Your task to perform on an android device: empty trash in google photos Image 0: 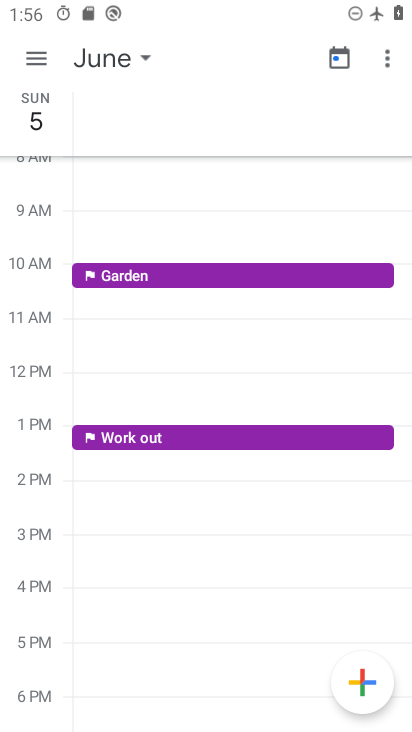
Step 0: press home button
Your task to perform on an android device: empty trash in google photos Image 1: 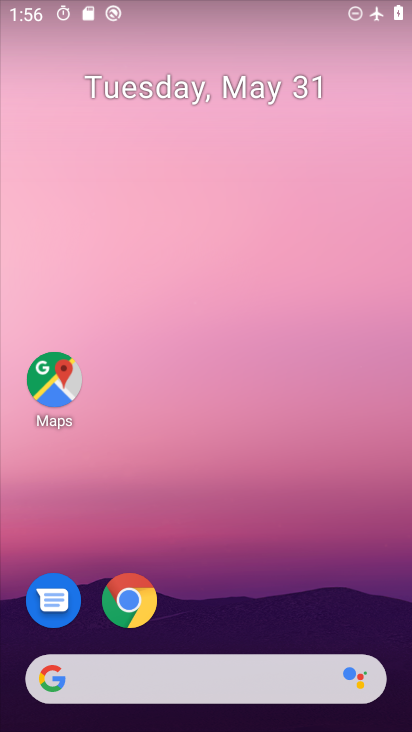
Step 1: drag from (223, 725) to (218, 502)
Your task to perform on an android device: empty trash in google photos Image 2: 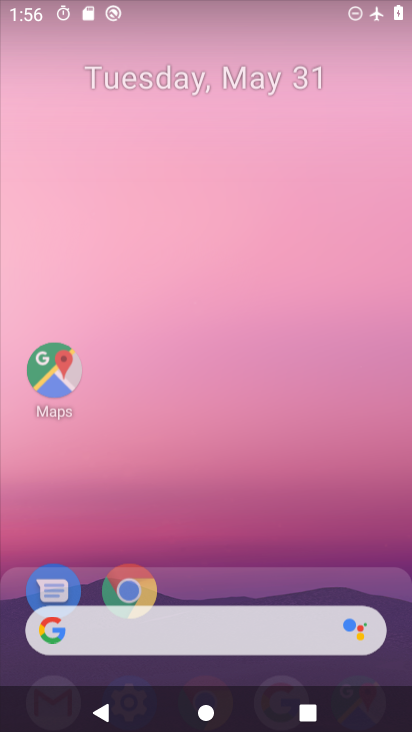
Step 2: drag from (218, 183) to (215, 129)
Your task to perform on an android device: empty trash in google photos Image 3: 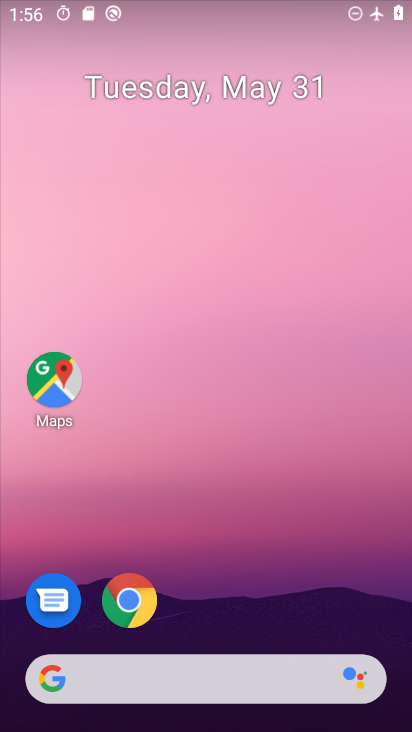
Step 3: drag from (236, 717) to (236, 66)
Your task to perform on an android device: empty trash in google photos Image 4: 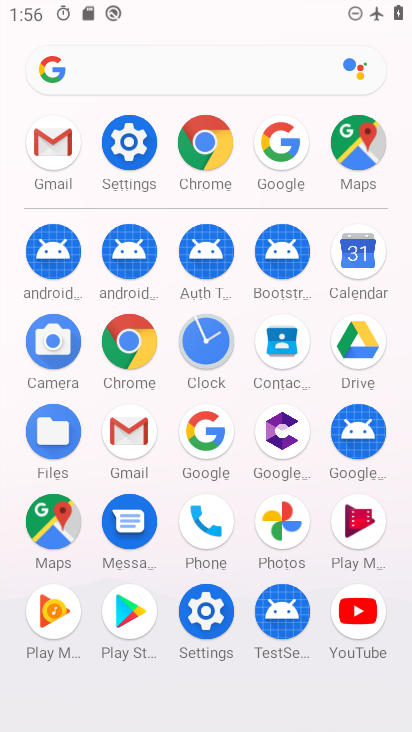
Step 4: click (281, 512)
Your task to perform on an android device: empty trash in google photos Image 5: 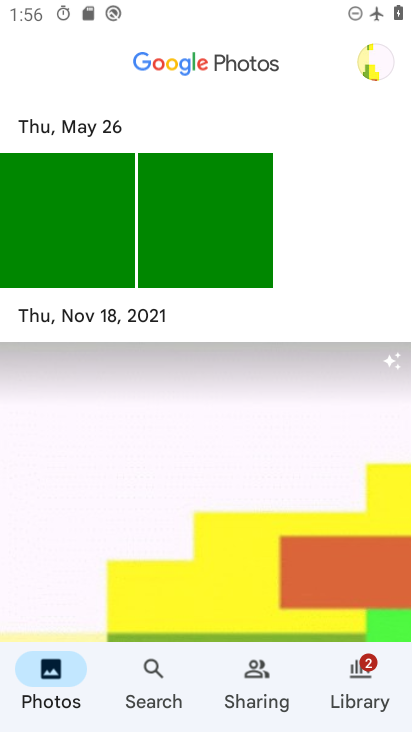
Step 5: click (364, 674)
Your task to perform on an android device: empty trash in google photos Image 6: 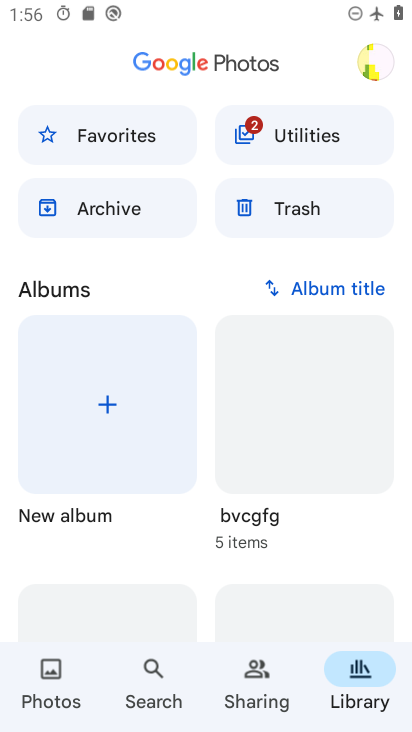
Step 6: click (299, 204)
Your task to perform on an android device: empty trash in google photos Image 7: 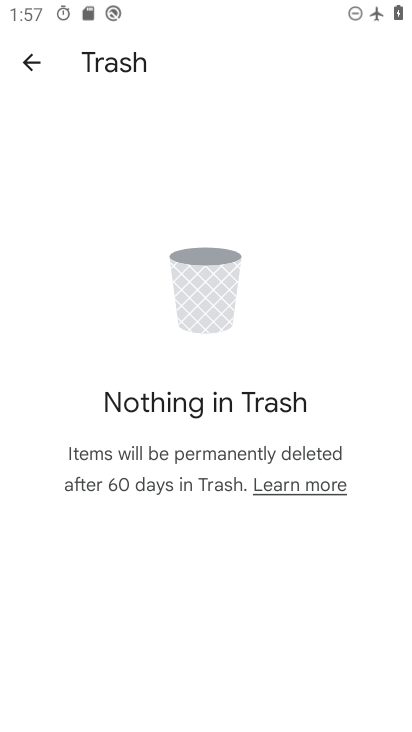
Step 7: task complete